Your task to perform on an android device: delete browsing data in the chrome app Image 0: 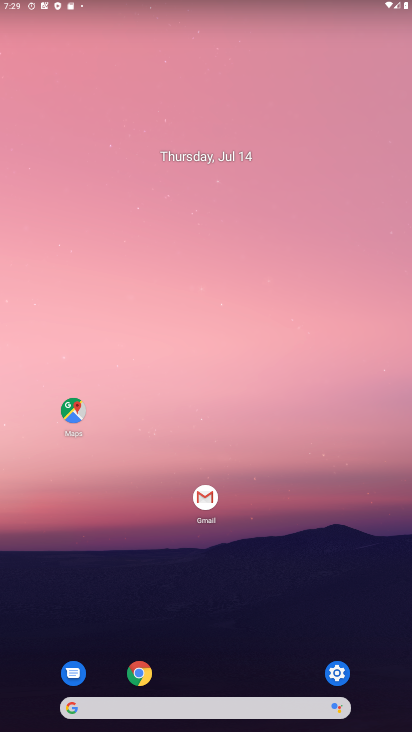
Step 0: press home button
Your task to perform on an android device: delete browsing data in the chrome app Image 1: 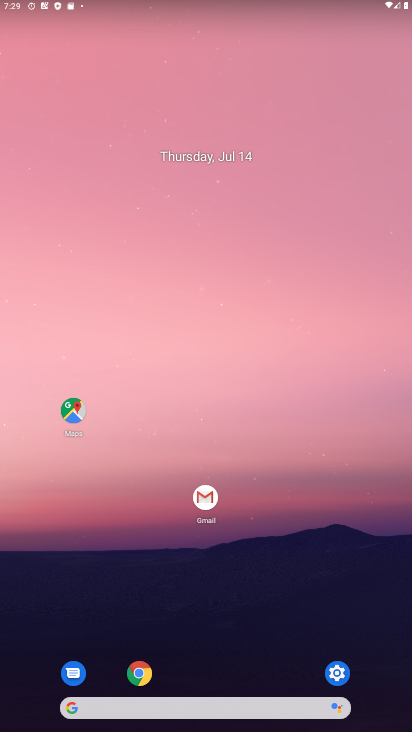
Step 1: click (139, 674)
Your task to perform on an android device: delete browsing data in the chrome app Image 2: 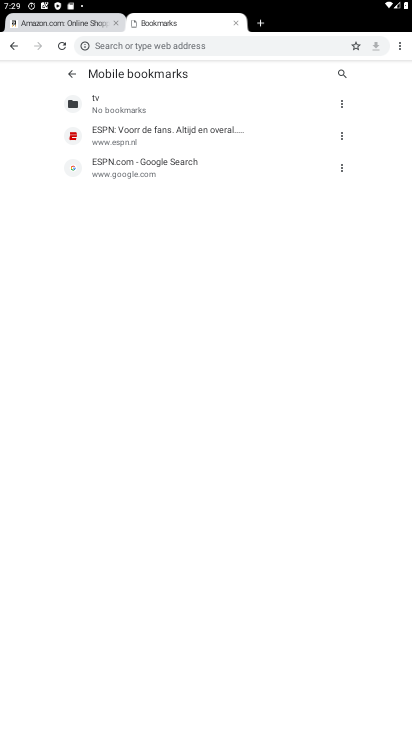
Step 2: click (397, 49)
Your task to perform on an android device: delete browsing data in the chrome app Image 3: 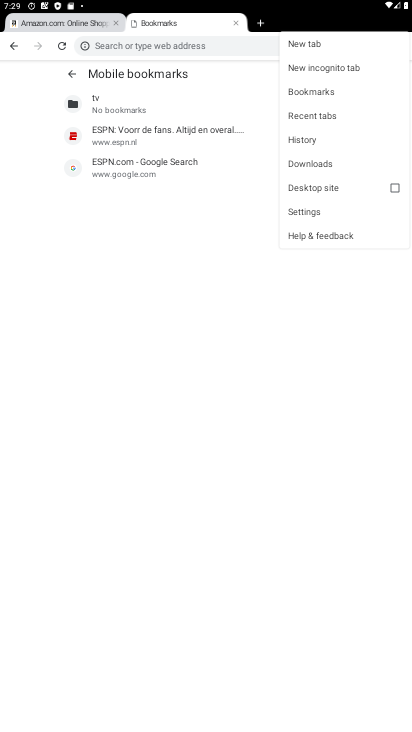
Step 3: click (297, 137)
Your task to perform on an android device: delete browsing data in the chrome app Image 4: 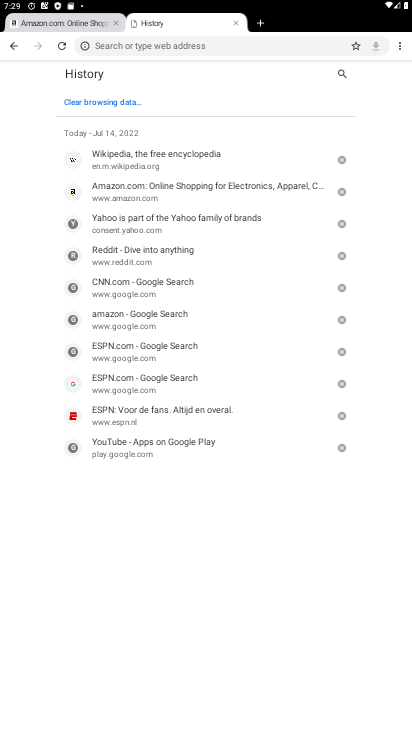
Step 4: click (111, 105)
Your task to perform on an android device: delete browsing data in the chrome app Image 5: 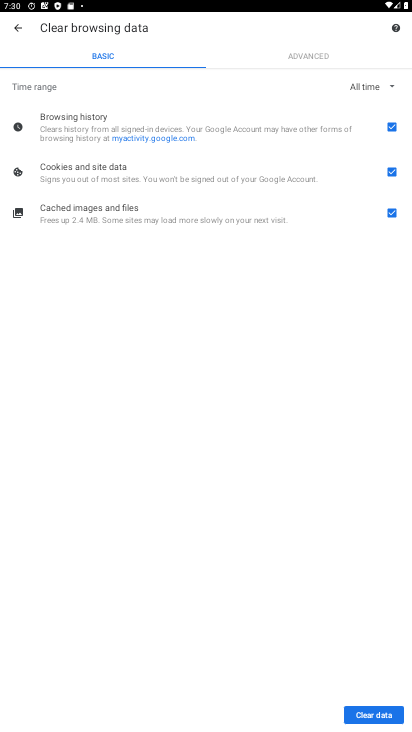
Step 5: click (361, 716)
Your task to perform on an android device: delete browsing data in the chrome app Image 6: 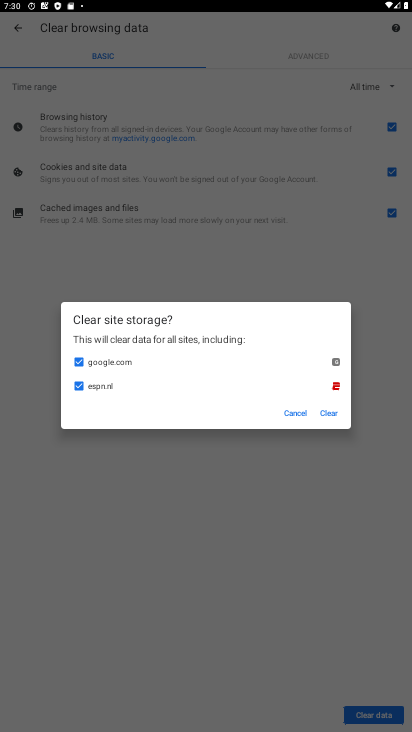
Step 6: task complete